Your task to perform on an android device: Go to notification settings Image 0: 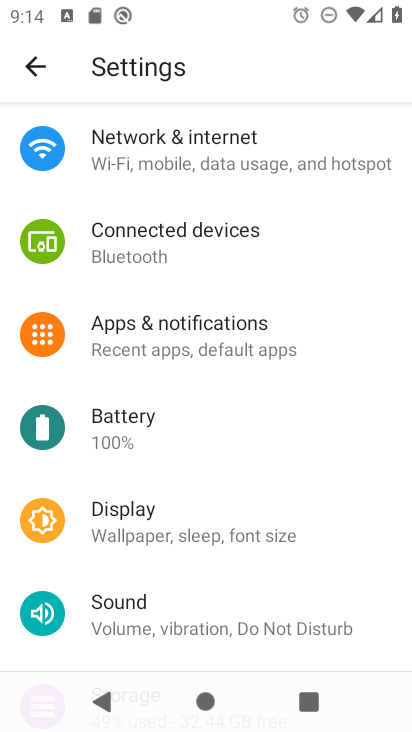
Step 0: click (267, 338)
Your task to perform on an android device: Go to notification settings Image 1: 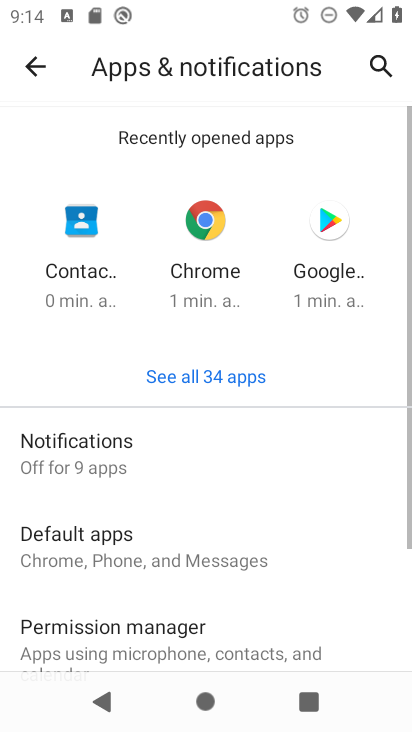
Step 1: click (179, 442)
Your task to perform on an android device: Go to notification settings Image 2: 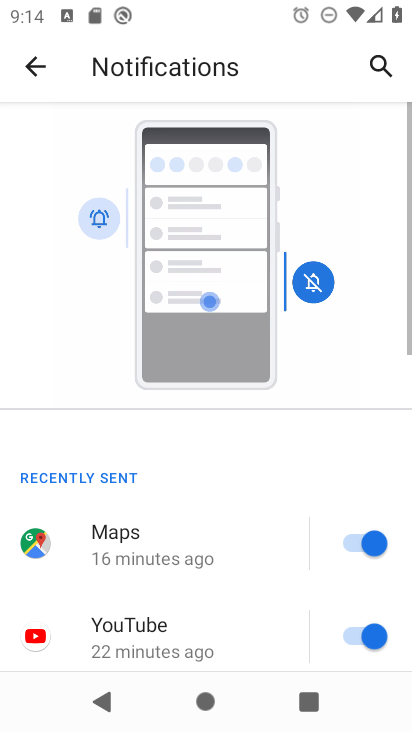
Step 2: task complete